Your task to perform on an android device: Search for usb-a on ebay.com, select the first entry, add it to the cart, then select checkout. Image 0: 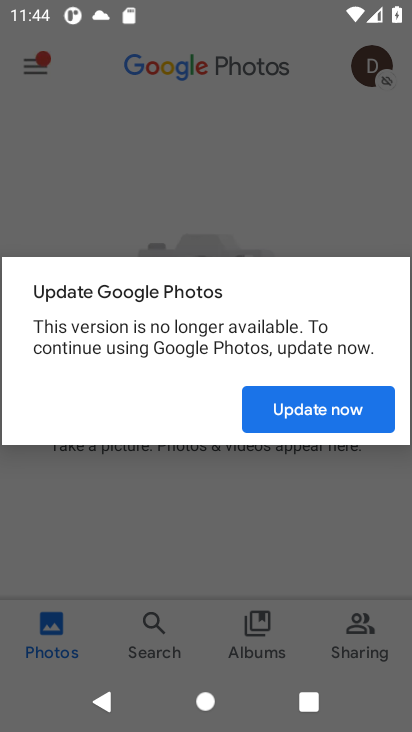
Step 0: press home button
Your task to perform on an android device: Search for usb-a on ebay.com, select the first entry, add it to the cart, then select checkout. Image 1: 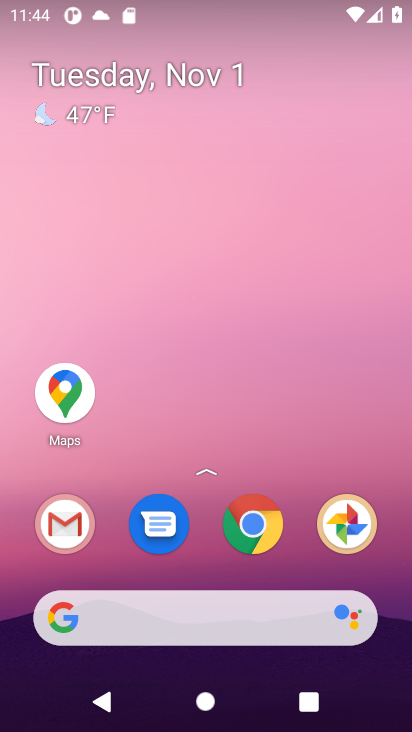
Step 1: click (100, 612)
Your task to perform on an android device: Search for usb-a on ebay.com, select the first entry, add it to the cart, then select checkout. Image 2: 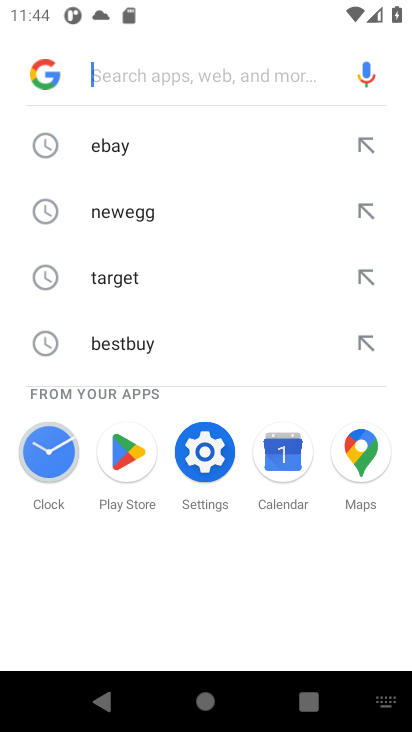
Step 2: type " ebay.com"
Your task to perform on an android device: Search for usb-a on ebay.com, select the first entry, add it to the cart, then select checkout. Image 3: 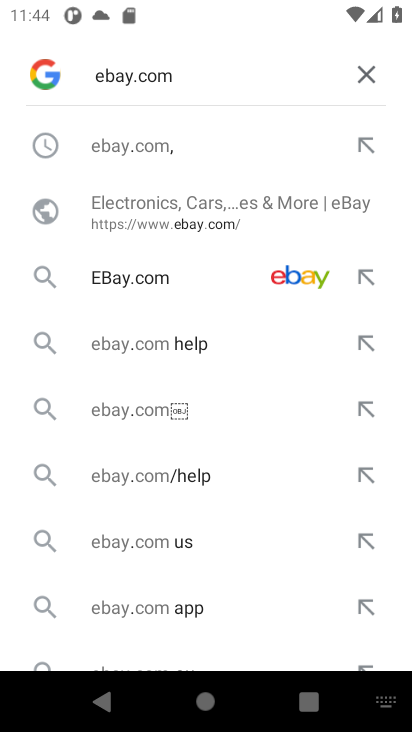
Step 3: press enter
Your task to perform on an android device: Search for usb-a on ebay.com, select the first entry, add it to the cart, then select checkout. Image 4: 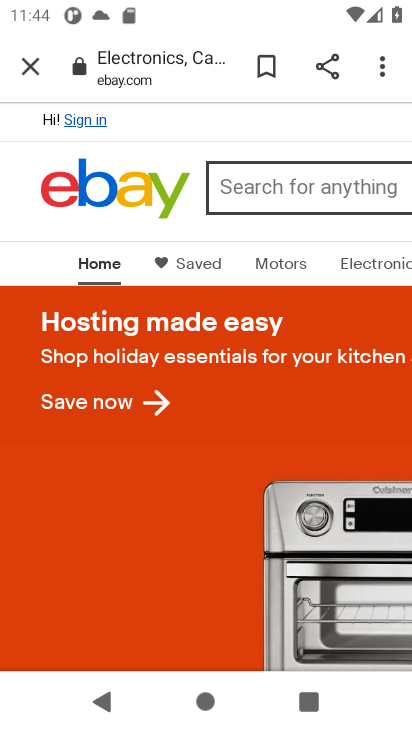
Step 4: drag from (366, 233) to (35, 230)
Your task to perform on an android device: Search for usb-a on ebay.com, select the first entry, add it to the cart, then select checkout. Image 5: 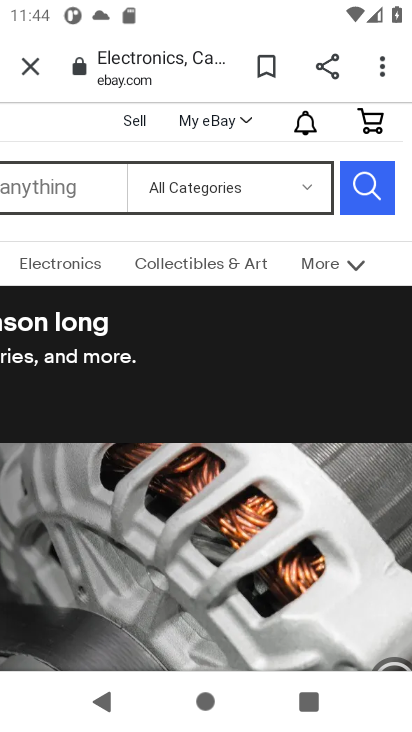
Step 5: click (50, 193)
Your task to perform on an android device: Search for usb-a on ebay.com, select the first entry, add it to the cart, then select checkout. Image 6: 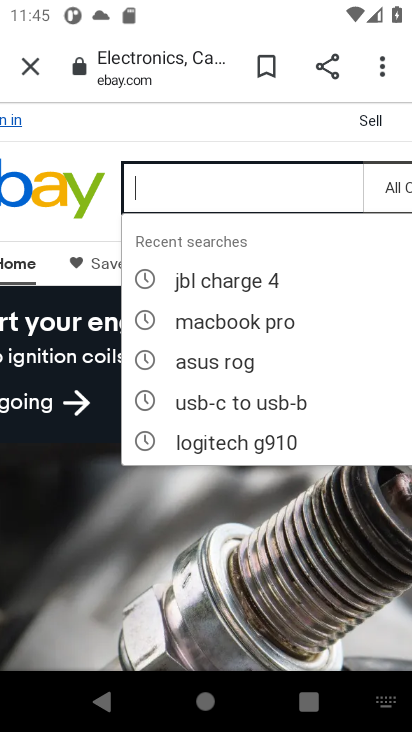
Step 6: click (261, 202)
Your task to perform on an android device: Search for usb-a on ebay.com, select the first entry, add it to the cart, then select checkout. Image 7: 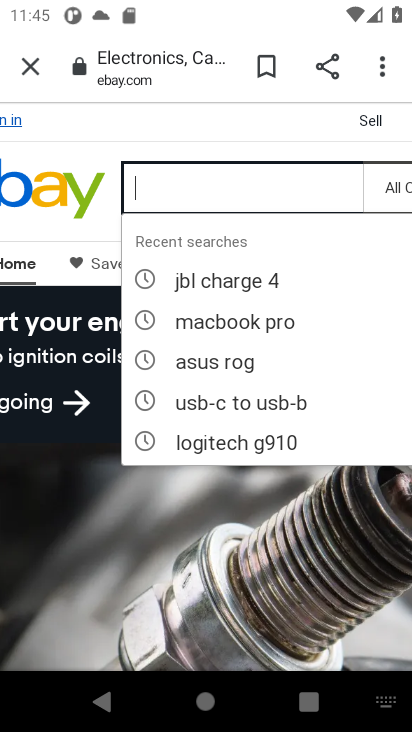
Step 7: click (262, 195)
Your task to perform on an android device: Search for usb-a on ebay.com, select the first entry, add it to the cart, then select checkout. Image 8: 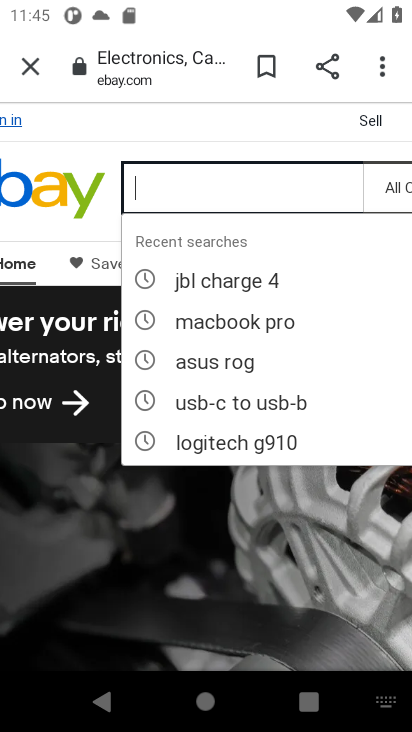
Step 8: type " usb-a"
Your task to perform on an android device: Search for usb-a on ebay.com, select the first entry, add it to the cart, then select checkout. Image 9: 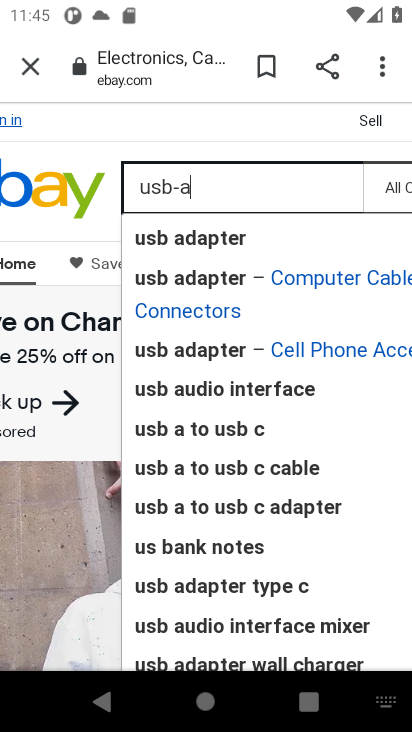
Step 9: press enter
Your task to perform on an android device: Search for usb-a on ebay.com, select the first entry, add it to the cart, then select checkout. Image 10: 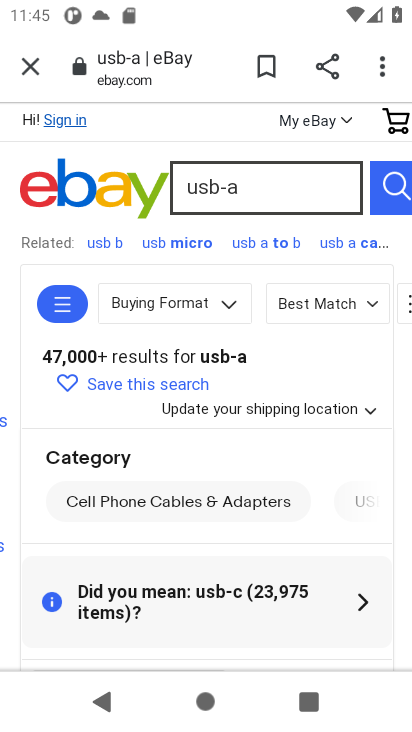
Step 10: task complete